Your task to perform on an android device: turn on location history Image 0: 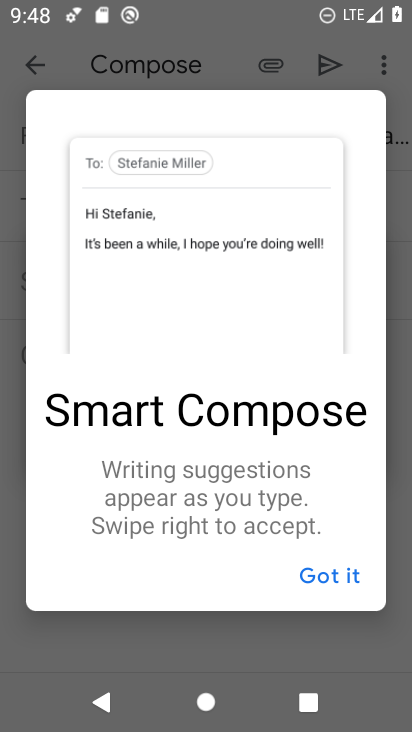
Step 0: press home button
Your task to perform on an android device: turn on location history Image 1: 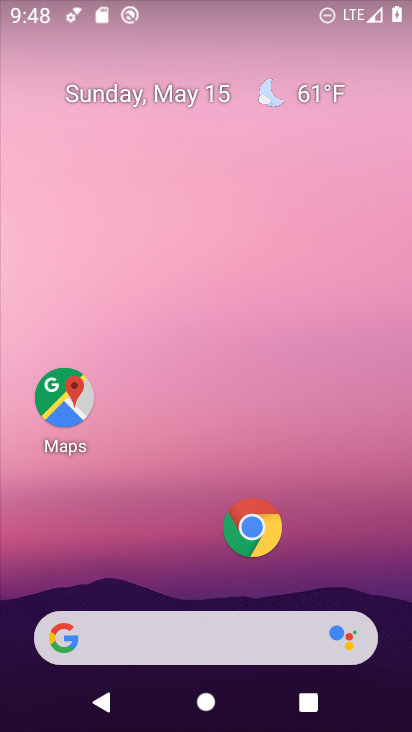
Step 1: drag from (190, 578) to (211, 66)
Your task to perform on an android device: turn on location history Image 2: 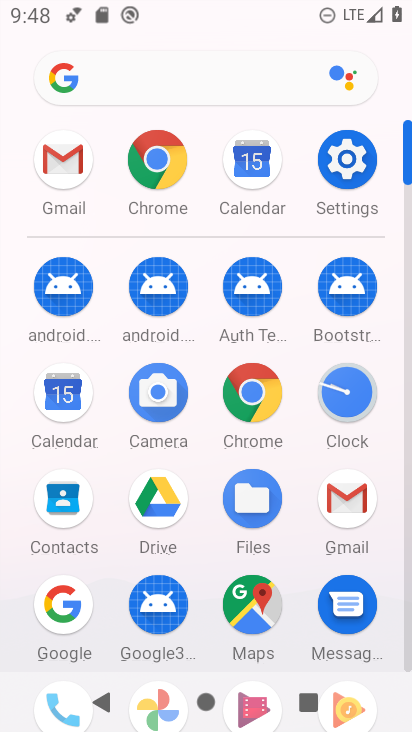
Step 2: click (357, 154)
Your task to perform on an android device: turn on location history Image 3: 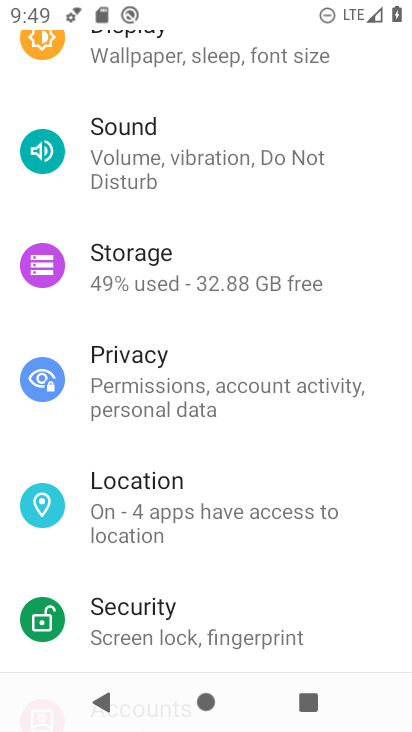
Step 3: click (112, 496)
Your task to perform on an android device: turn on location history Image 4: 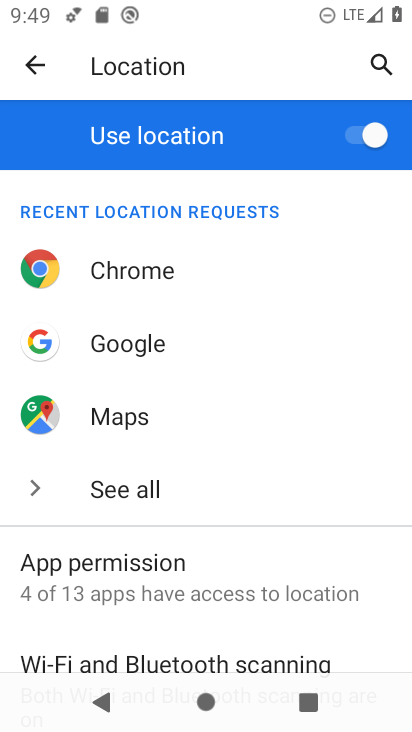
Step 4: drag from (301, 617) to (296, 175)
Your task to perform on an android device: turn on location history Image 5: 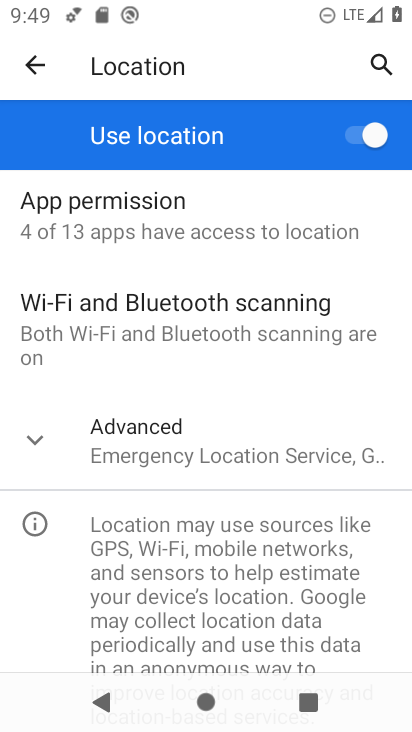
Step 5: click (35, 435)
Your task to perform on an android device: turn on location history Image 6: 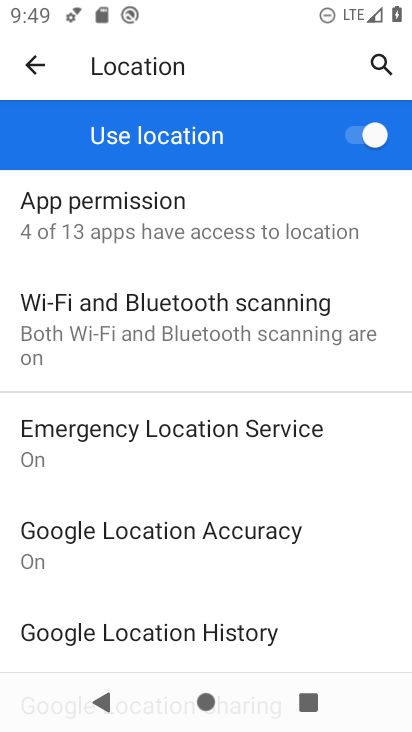
Step 6: click (189, 631)
Your task to perform on an android device: turn on location history Image 7: 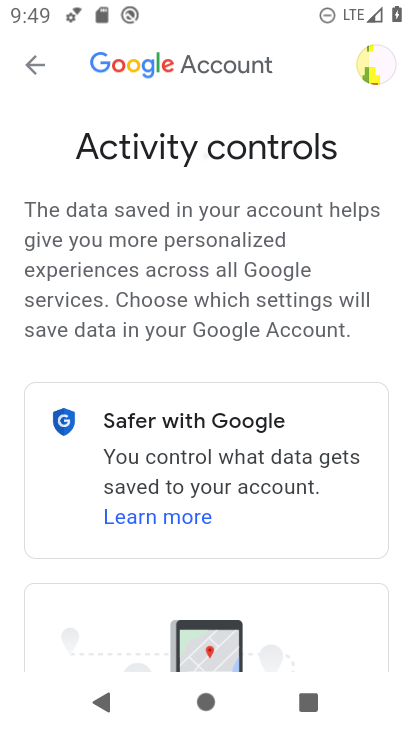
Step 7: drag from (205, 596) to (242, 211)
Your task to perform on an android device: turn on location history Image 8: 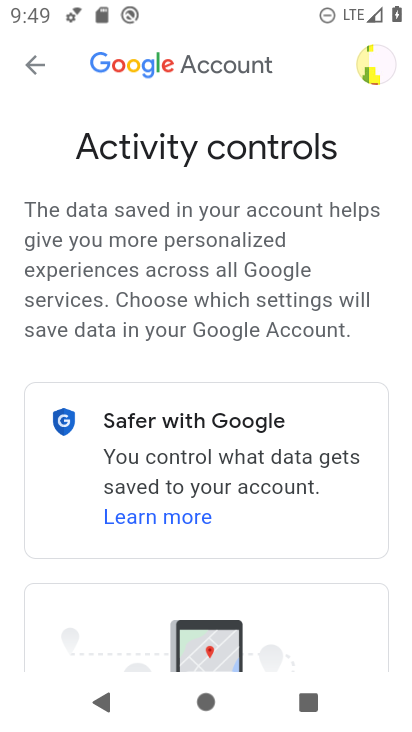
Step 8: drag from (233, 572) to (274, 81)
Your task to perform on an android device: turn on location history Image 9: 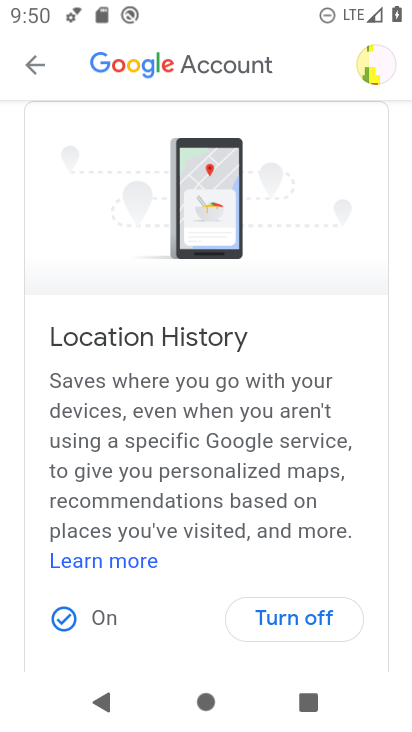
Step 9: click (300, 615)
Your task to perform on an android device: turn on location history Image 10: 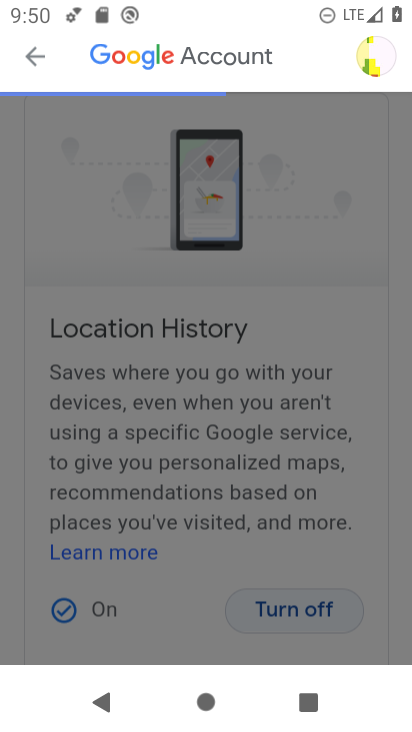
Step 10: task complete